Your task to perform on an android device: Do I have any events this weekend? Image 0: 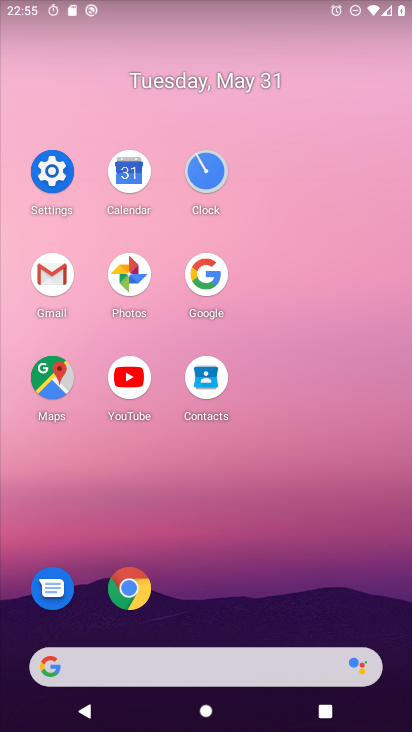
Step 0: click (133, 180)
Your task to perform on an android device: Do I have any events this weekend? Image 1: 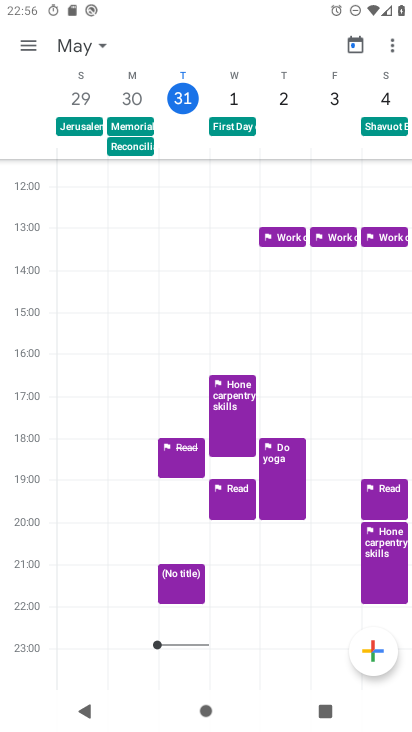
Step 1: task complete